Your task to perform on an android device: Search for seafood restaurants on Google Maps Image 0: 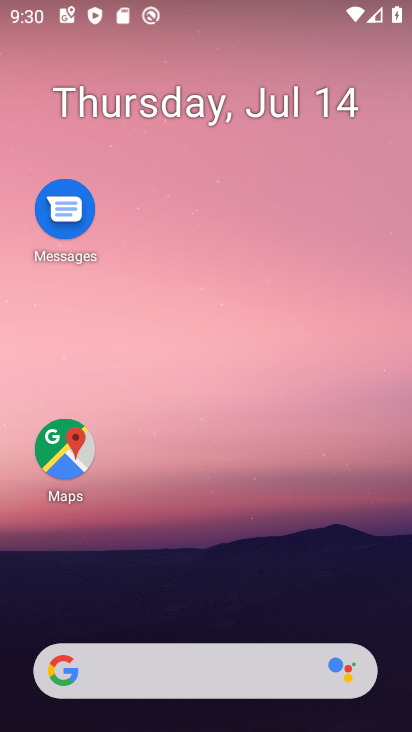
Step 0: drag from (241, 624) to (208, 120)
Your task to perform on an android device: Search for seafood restaurants on Google Maps Image 1: 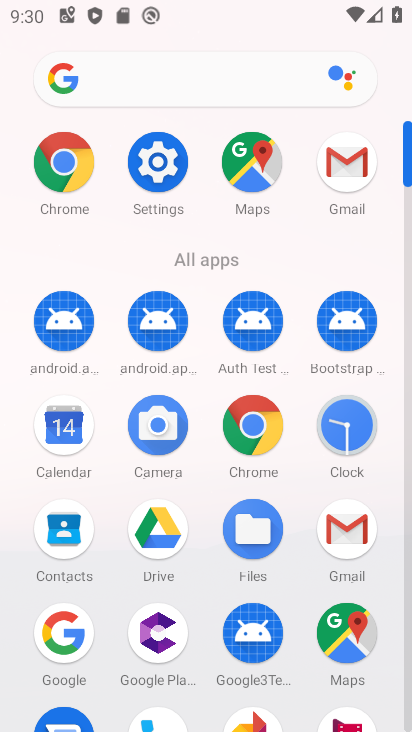
Step 1: click (326, 632)
Your task to perform on an android device: Search for seafood restaurants on Google Maps Image 2: 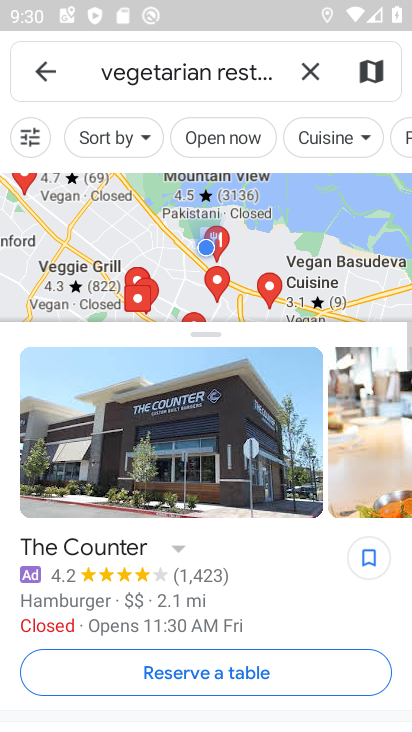
Step 2: click (305, 78)
Your task to perform on an android device: Search for seafood restaurants on Google Maps Image 3: 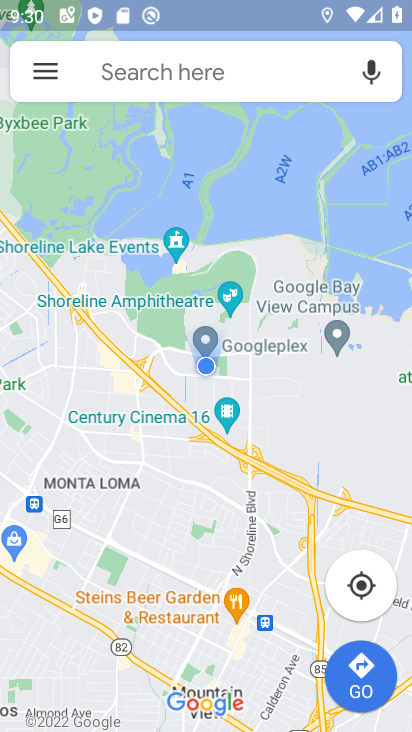
Step 3: click (224, 85)
Your task to perform on an android device: Search for seafood restaurants on Google Maps Image 4: 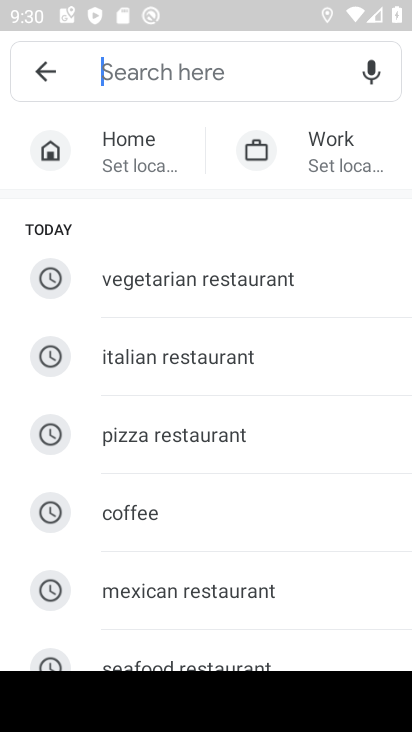
Step 4: click (201, 654)
Your task to perform on an android device: Search for seafood restaurants on Google Maps Image 5: 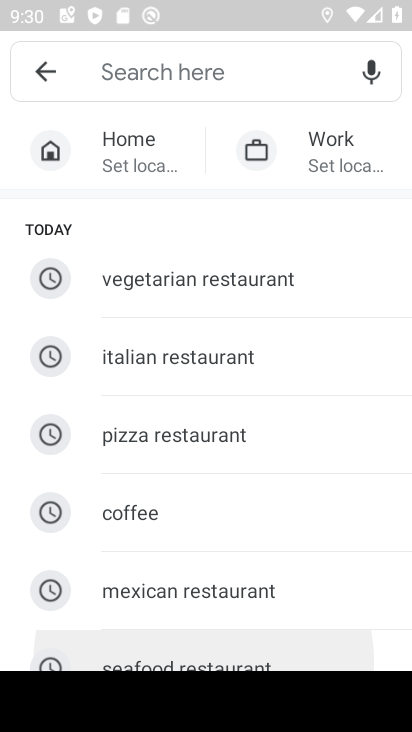
Step 5: click (201, 654)
Your task to perform on an android device: Search for seafood restaurants on Google Maps Image 6: 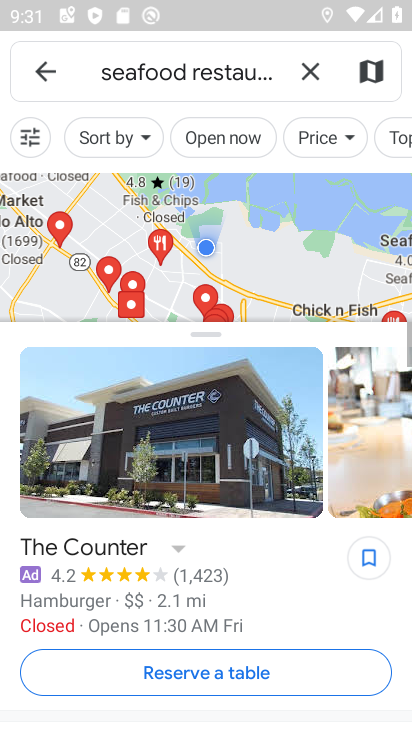
Step 6: task complete